Your task to perform on an android device: check storage Image 0: 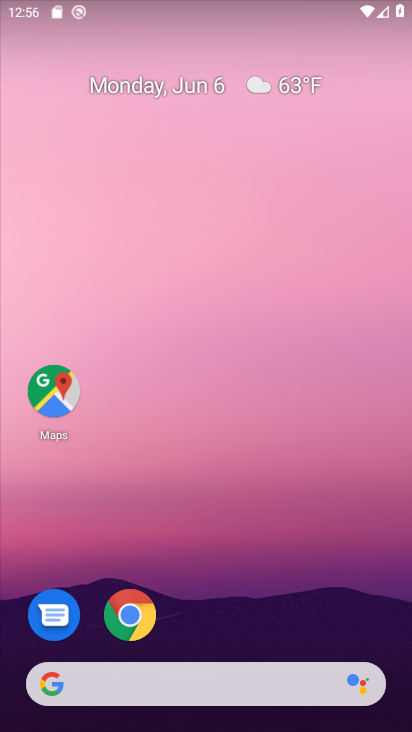
Step 0: drag from (205, 605) to (262, 75)
Your task to perform on an android device: check storage Image 1: 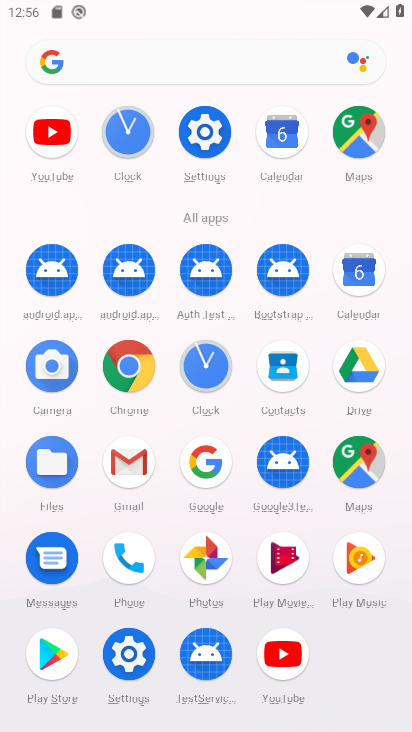
Step 1: click (133, 659)
Your task to perform on an android device: check storage Image 2: 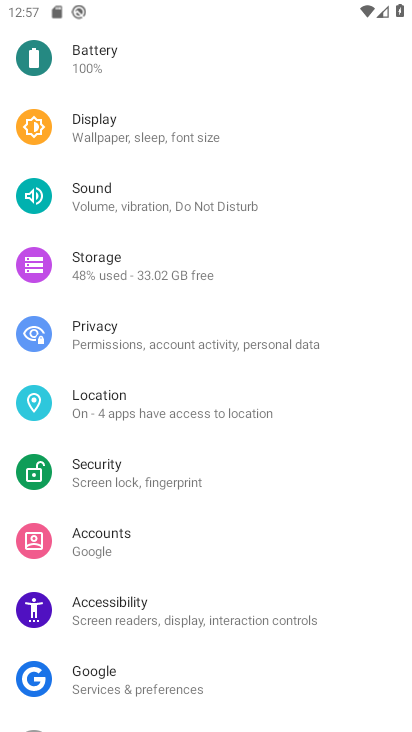
Step 2: click (109, 252)
Your task to perform on an android device: check storage Image 3: 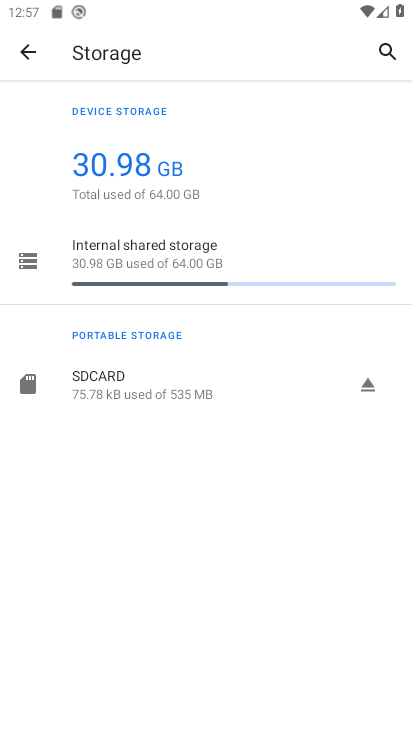
Step 3: task complete